Your task to perform on an android device: Open Google Chrome and click the shortcut for Amazon.com Image 0: 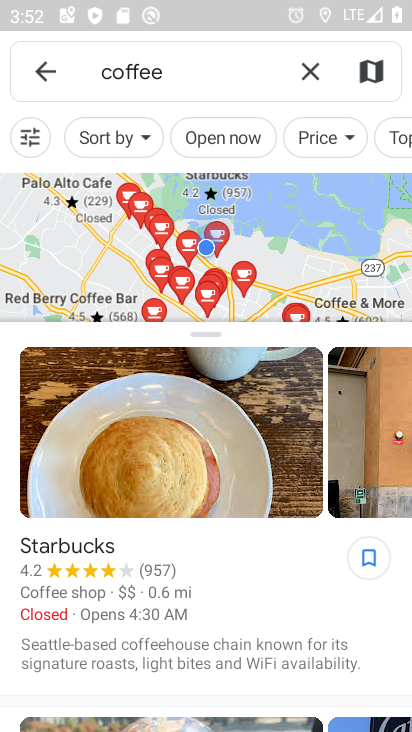
Step 0: press home button
Your task to perform on an android device: Open Google Chrome and click the shortcut for Amazon.com Image 1: 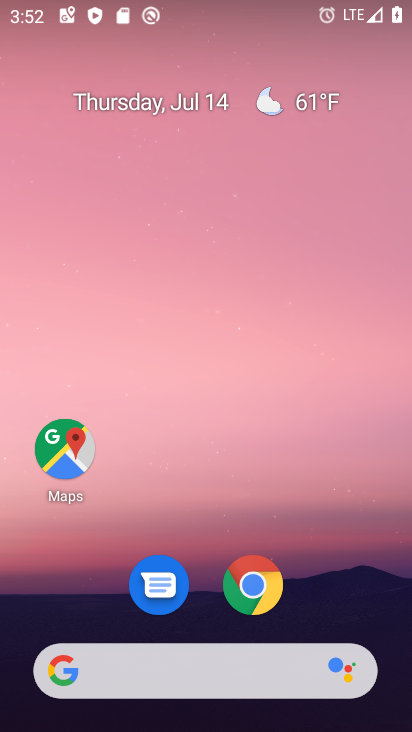
Step 1: click (245, 597)
Your task to perform on an android device: Open Google Chrome and click the shortcut for Amazon.com Image 2: 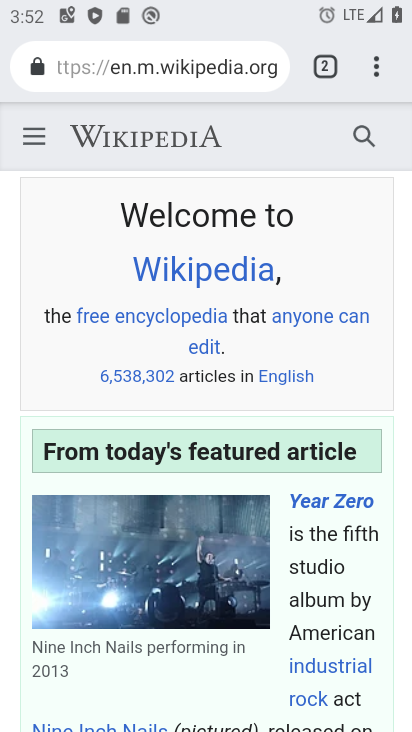
Step 2: click (375, 70)
Your task to perform on an android device: Open Google Chrome and click the shortcut for Amazon.com Image 3: 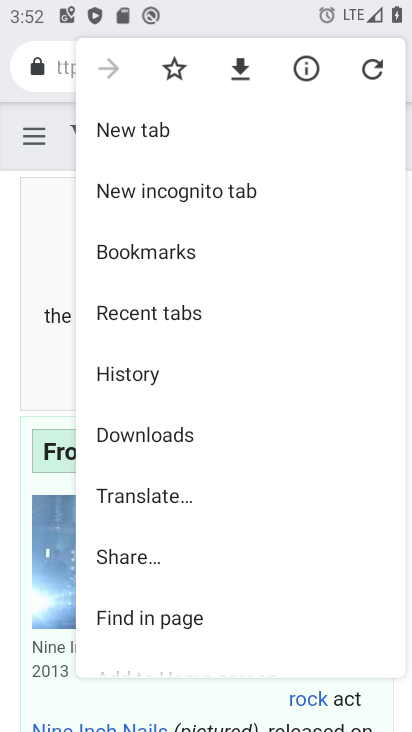
Step 3: click (287, 130)
Your task to perform on an android device: Open Google Chrome and click the shortcut for Amazon.com Image 4: 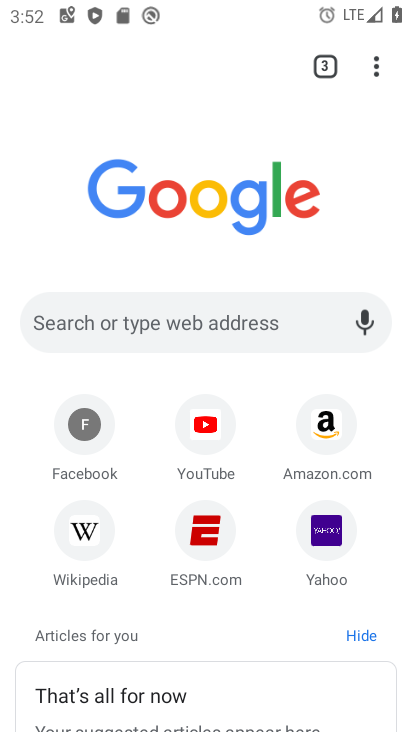
Step 4: click (322, 414)
Your task to perform on an android device: Open Google Chrome and click the shortcut for Amazon.com Image 5: 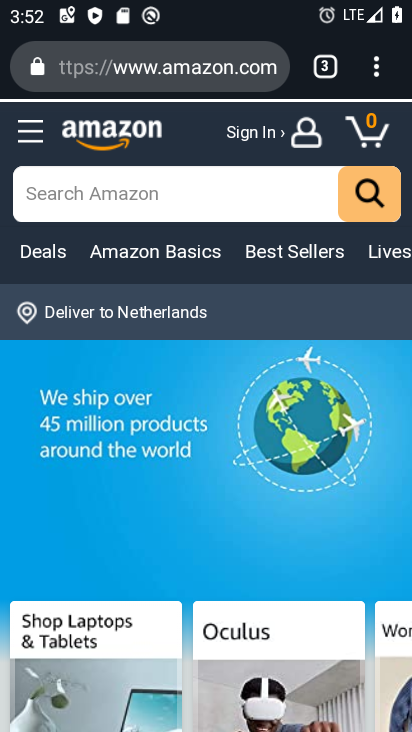
Step 5: click (322, 414)
Your task to perform on an android device: Open Google Chrome and click the shortcut for Amazon.com Image 6: 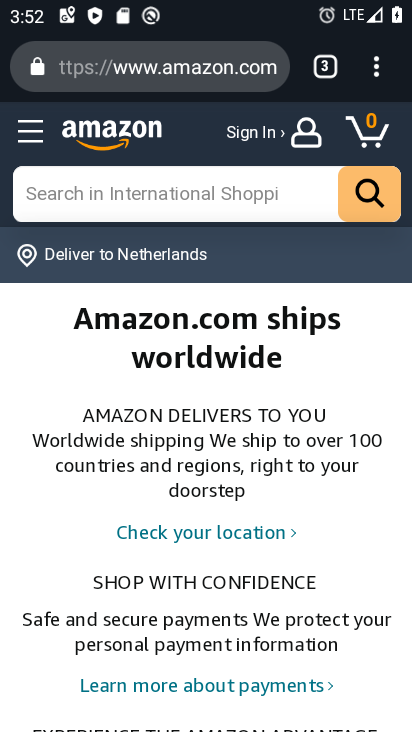
Step 6: task complete